Your task to perform on an android device: What's the weather today? Image 0: 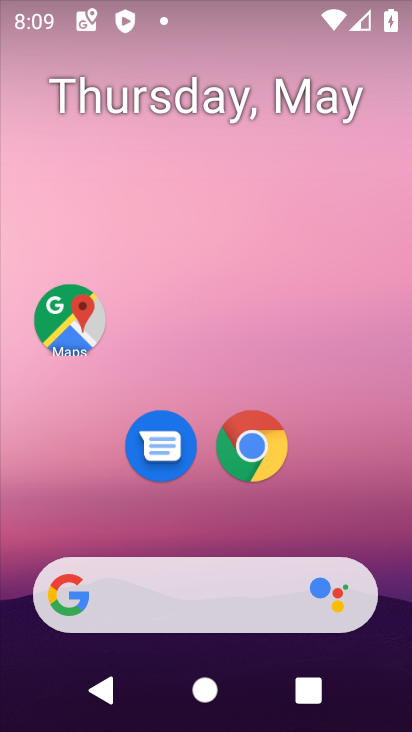
Step 0: drag from (372, 471) to (342, 205)
Your task to perform on an android device: What's the weather today? Image 1: 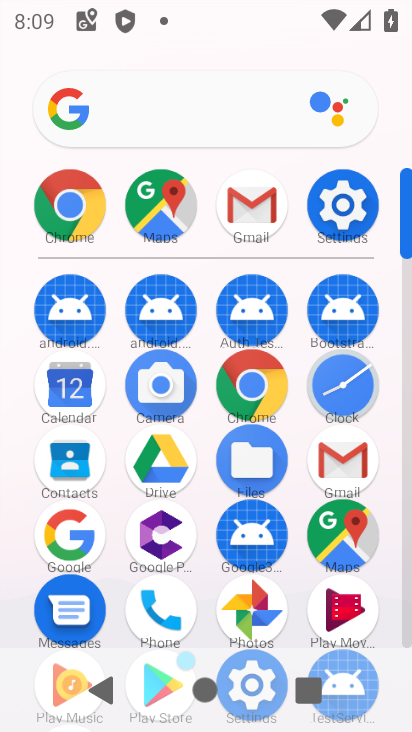
Step 1: click (242, 404)
Your task to perform on an android device: What's the weather today? Image 2: 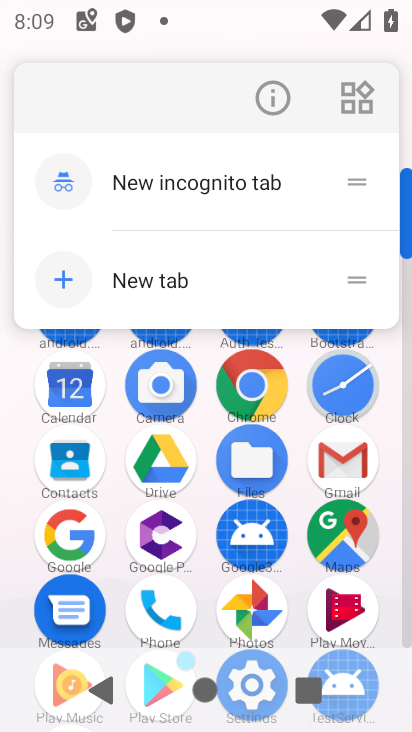
Step 2: click (256, 373)
Your task to perform on an android device: What's the weather today? Image 3: 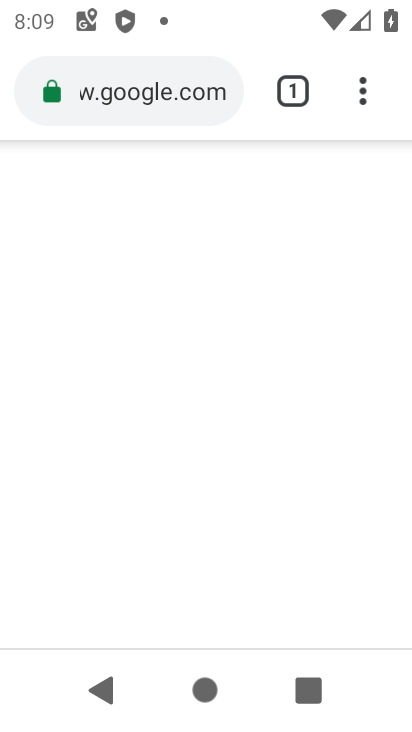
Step 3: click (145, 105)
Your task to perform on an android device: What's the weather today? Image 4: 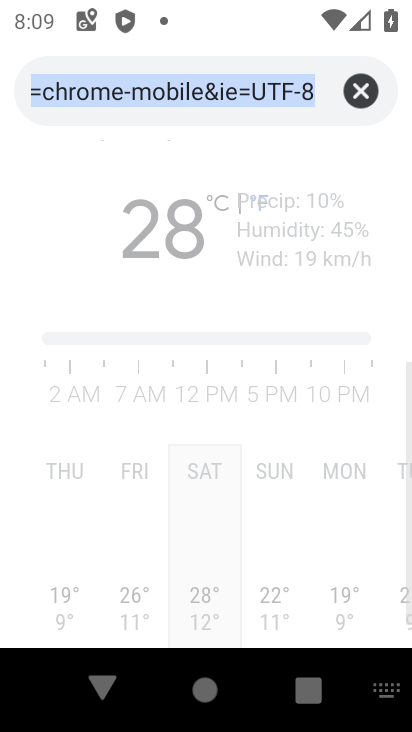
Step 4: click (359, 93)
Your task to perform on an android device: What's the weather today? Image 5: 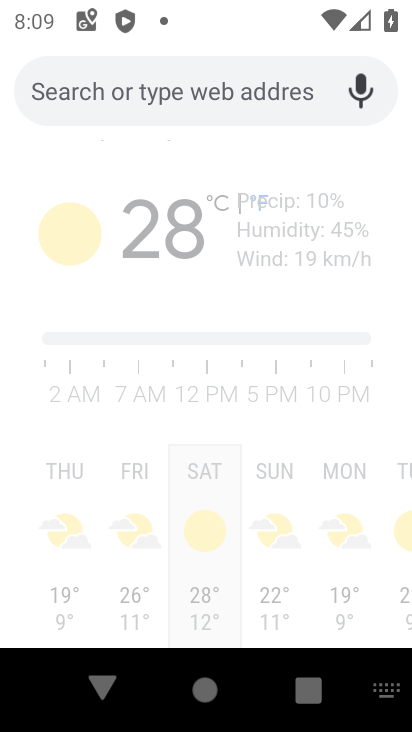
Step 5: type "what's the weather today"
Your task to perform on an android device: What's the weather today? Image 6: 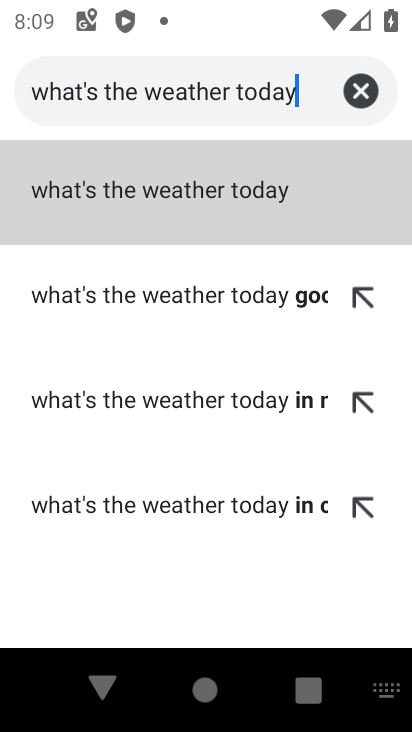
Step 6: click (174, 197)
Your task to perform on an android device: What's the weather today? Image 7: 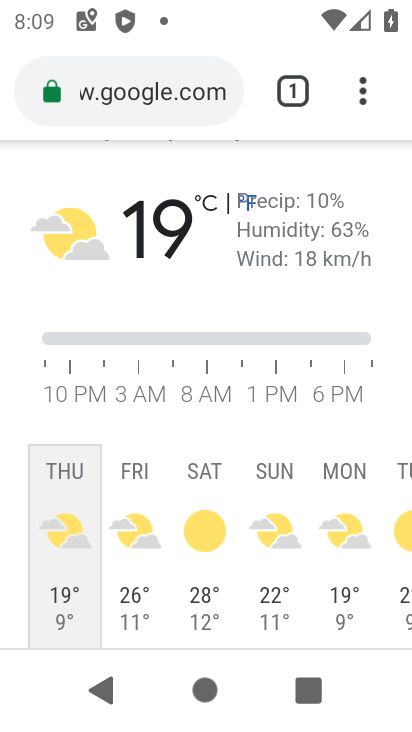
Step 7: task complete